Your task to perform on an android device: open app "Viber Messenger" (install if not already installed), go to login, and select forgot password Image 0: 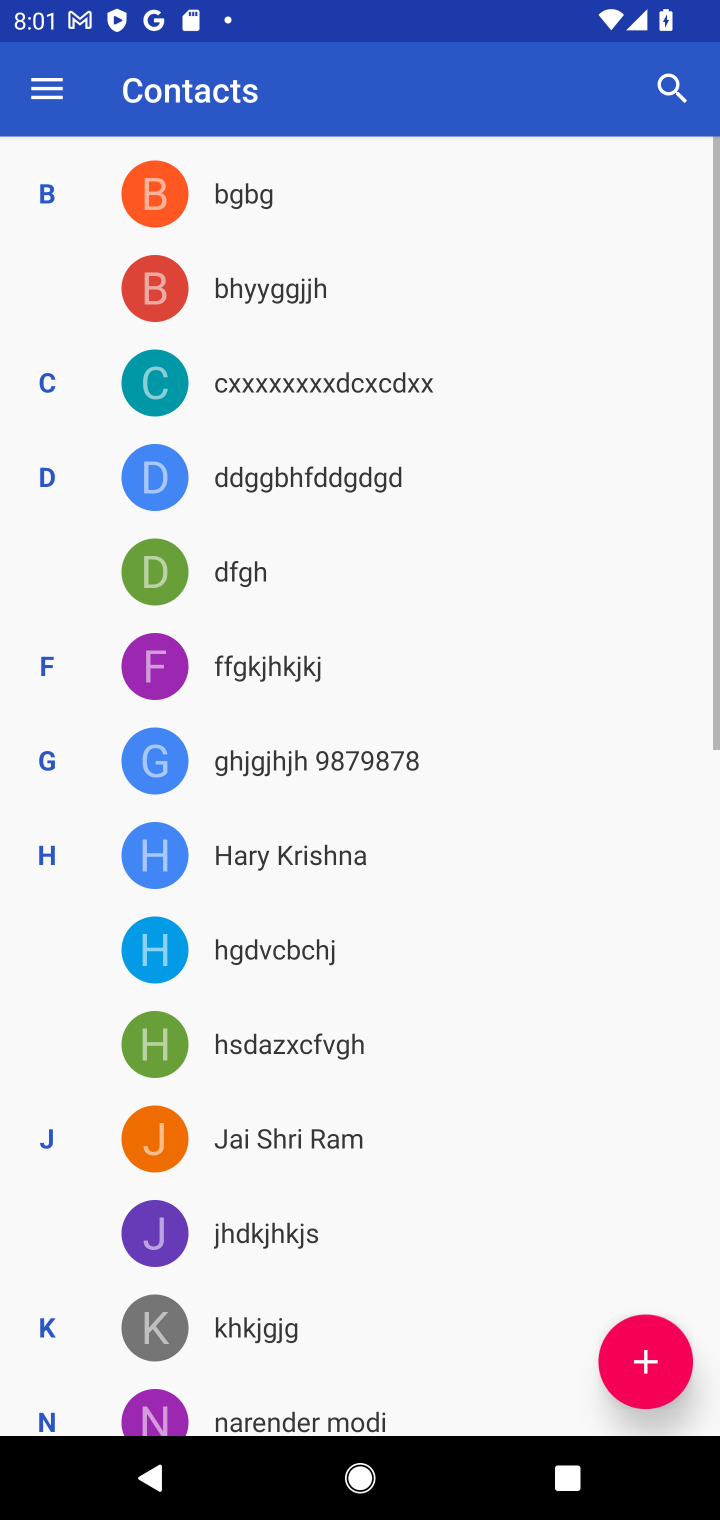
Step 0: press home button
Your task to perform on an android device: open app "Viber Messenger" (install if not already installed), go to login, and select forgot password Image 1: 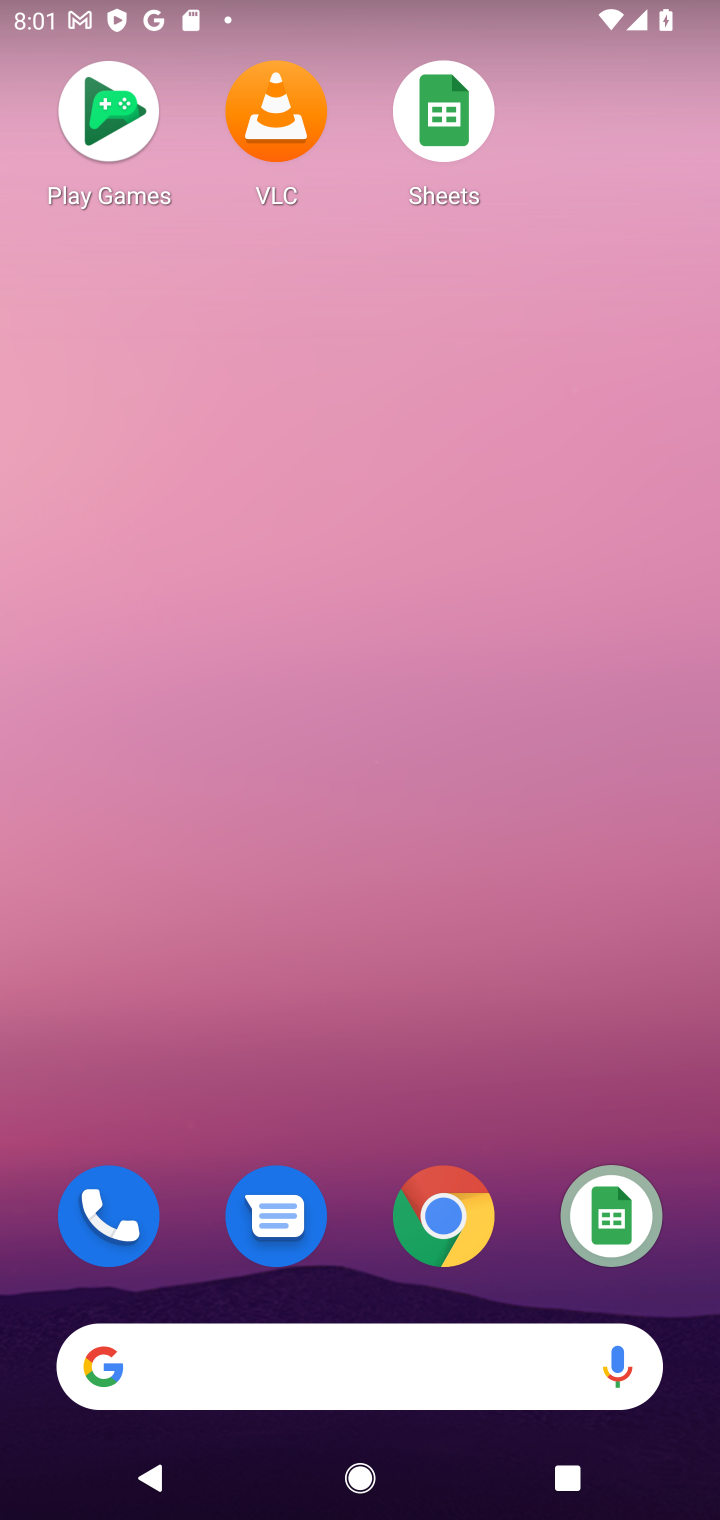
Step 1: drag from (382, 1204) to (449, 124)
Your task to perform on an android device: open app "Viber Messenger" (install if not already installed), go to login, and select forgot password Image 2: 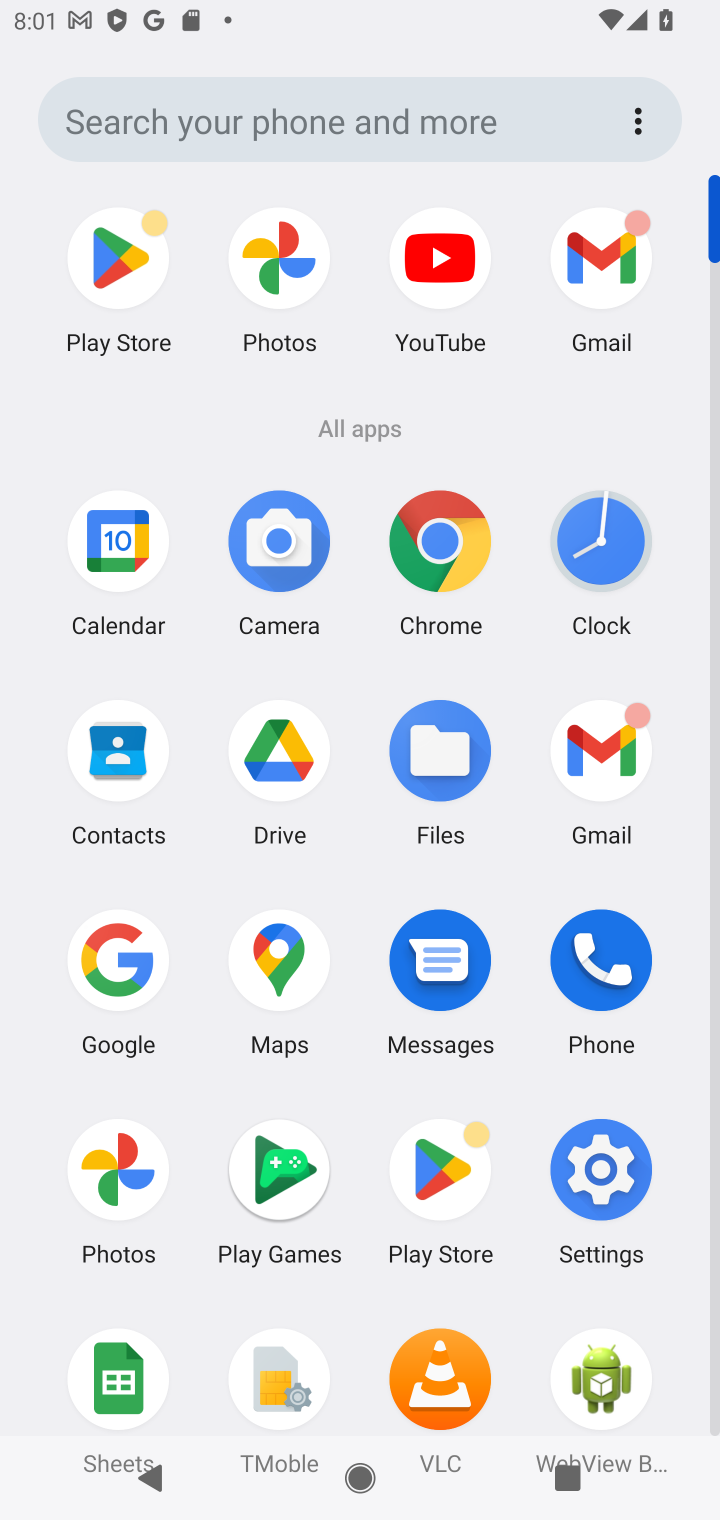
Step 2: click (105, 238)
Your task to perform on an android device: open app "Viber Messenger" (install if not already installed), go to login, and select forgot password Image 3: 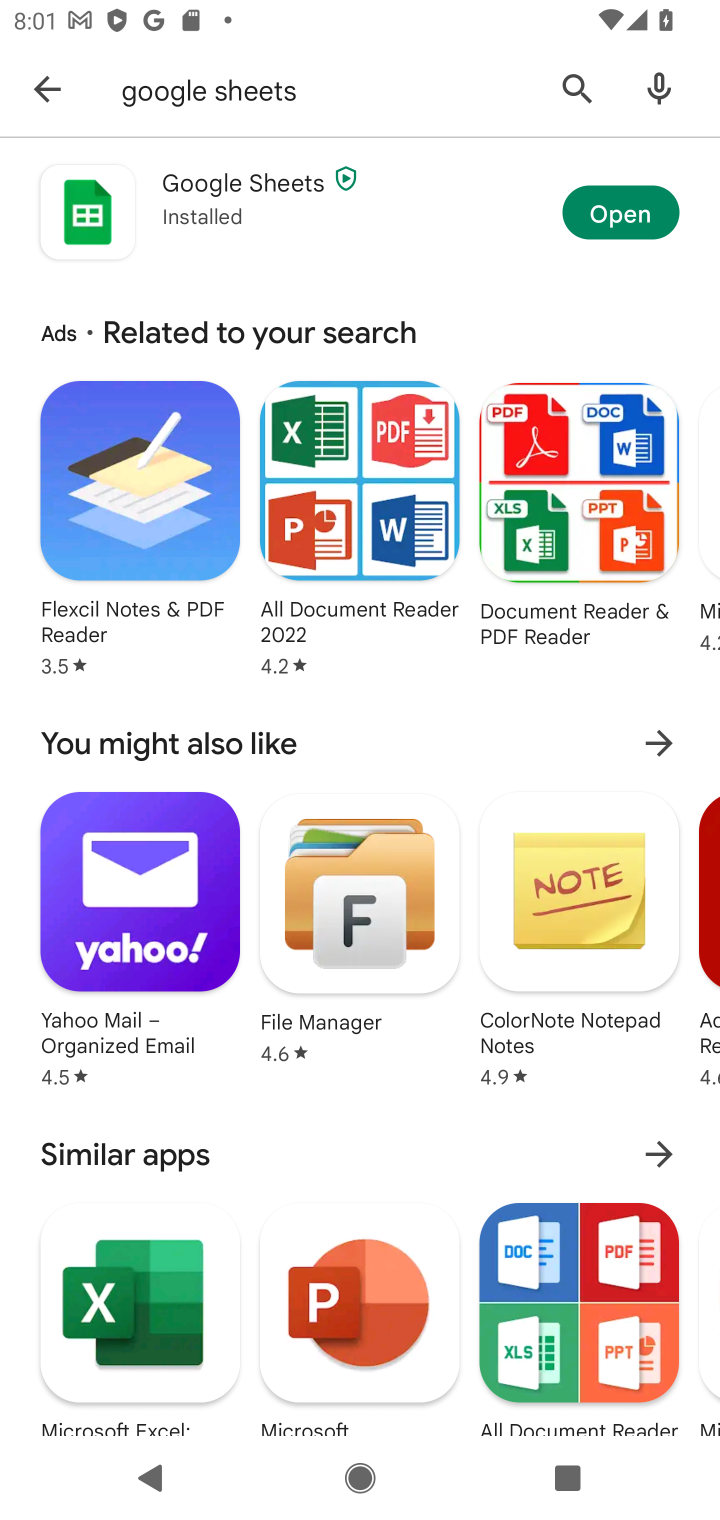
Step 3: click (569, 91)
Your task to perform on an android device: open app "Viber Messenger" (install if not already installed), go to login, and select forgot password Image 4: 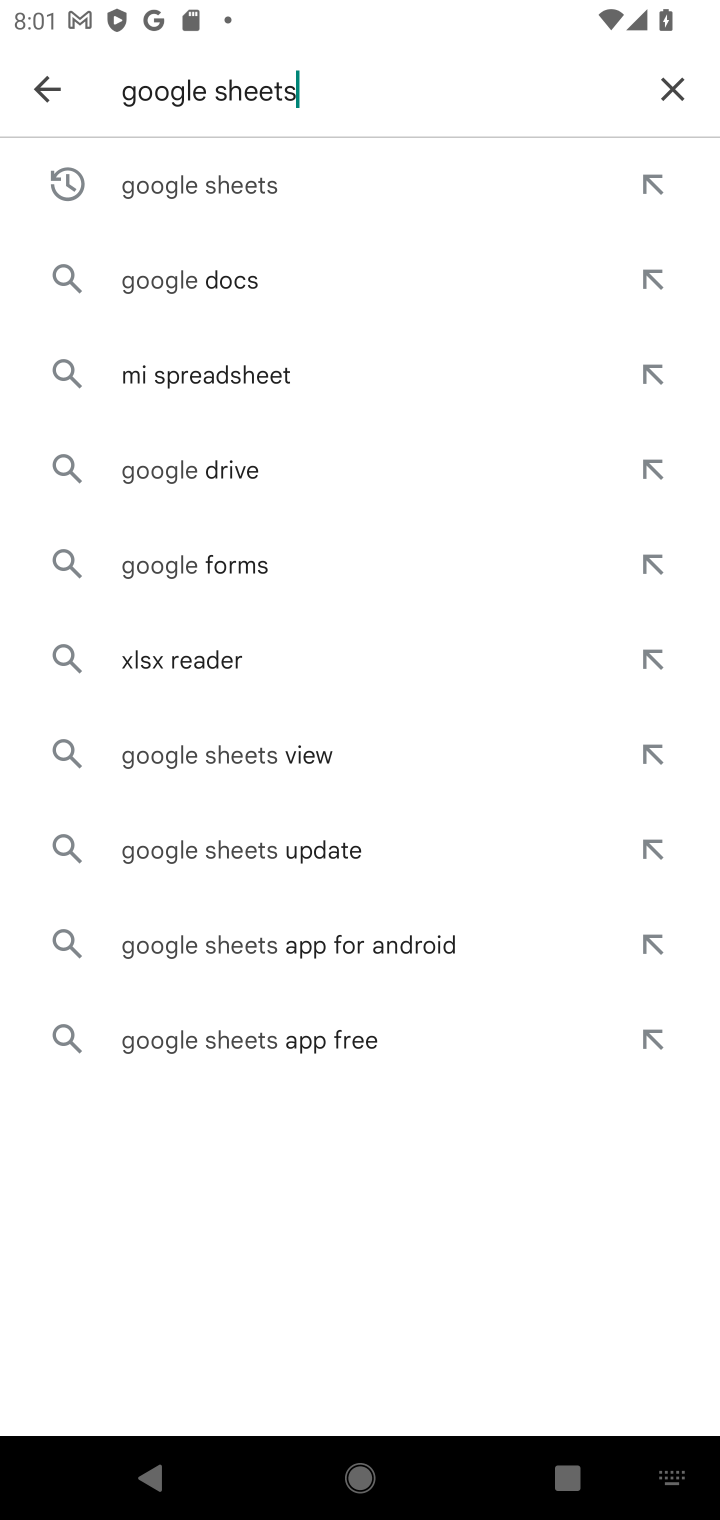
Step 4: click (685, 67)
Your task to perform on an android device: open app "Viber Messenger" (install if not already installed), go to login, and select forgot password Image 5: 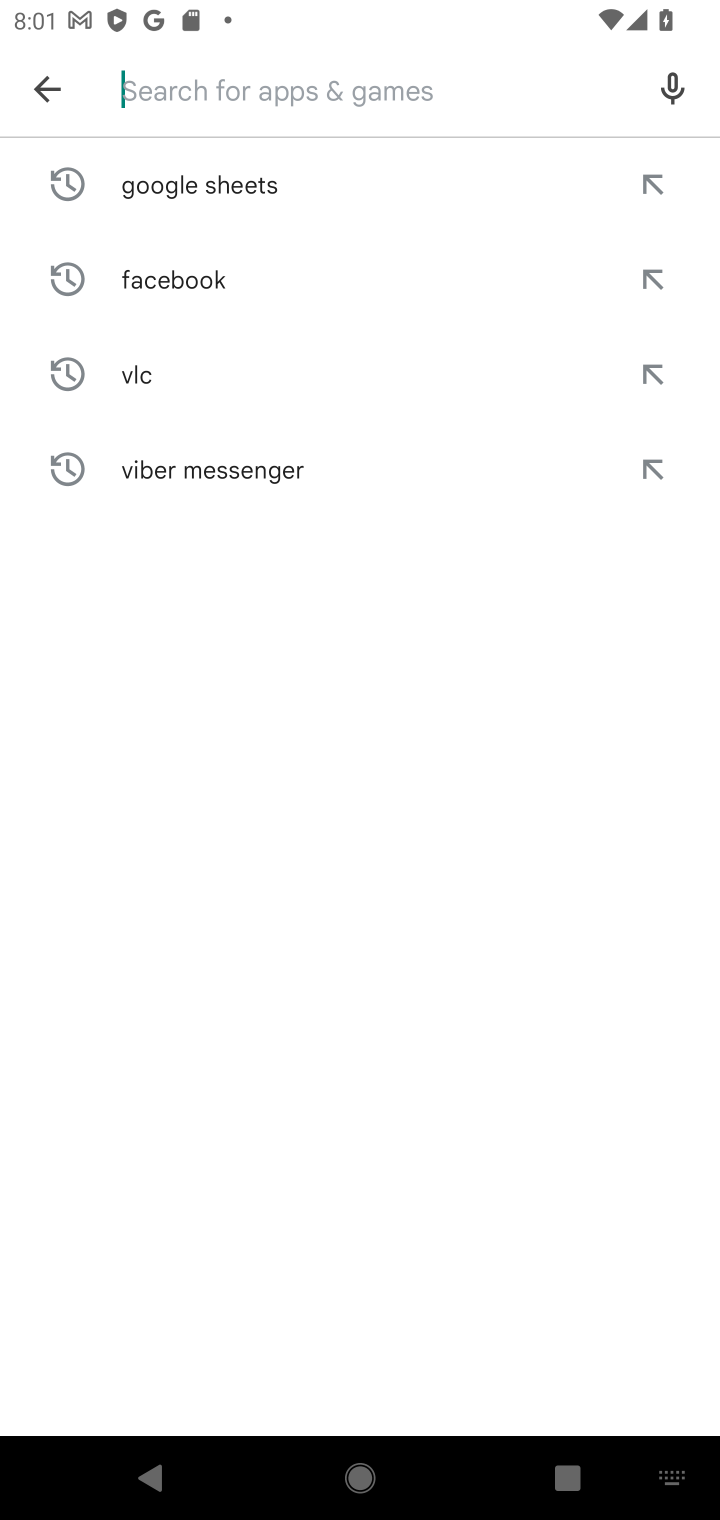
Step 5: click (270, 459)
Your task to perform on an android device: open app "Viber Messenger" (install if not already installed), go to login, and select forgot password Image 6: 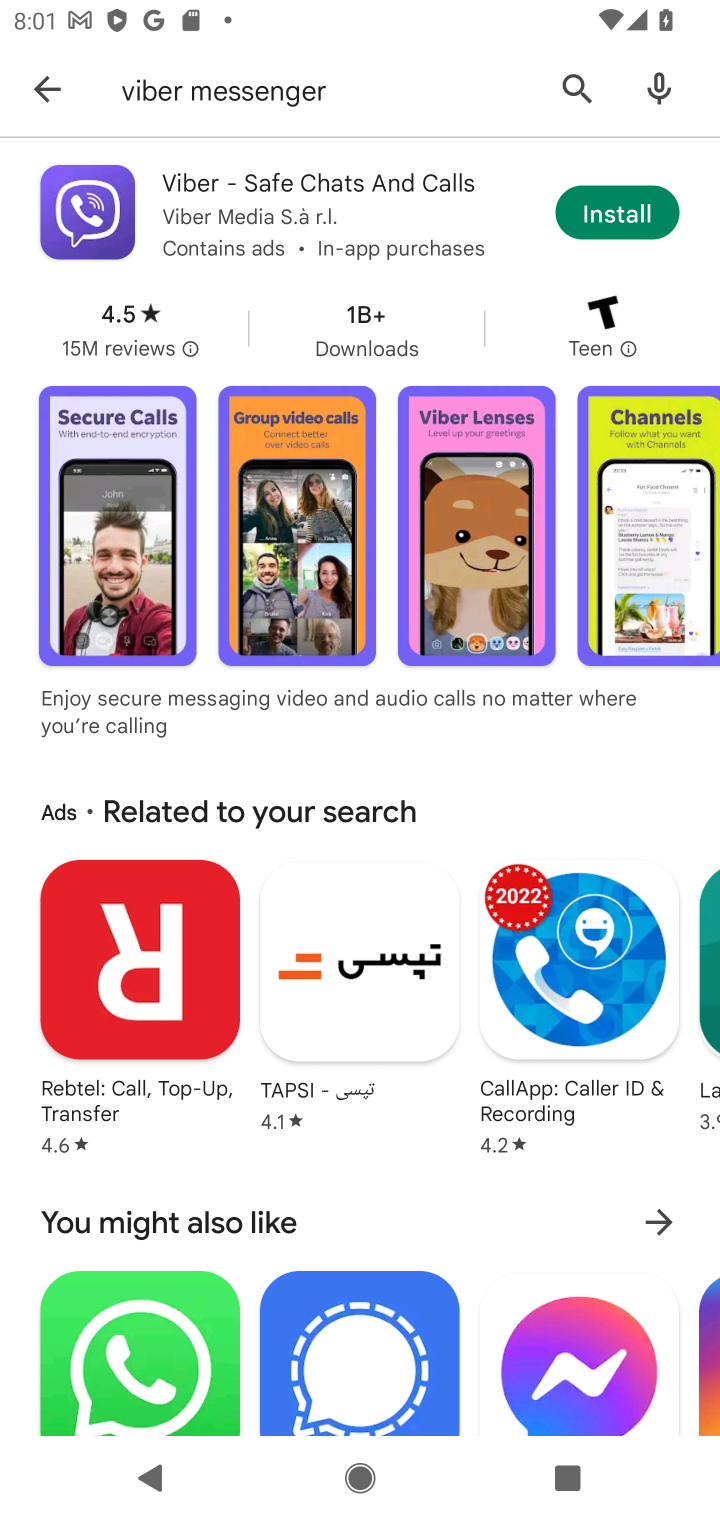
Step 6: click (631, 214)
Your task to perform on an android device: open app "Viber Messenger" (install if not already installed), go to login, and select forgot password Image 7: 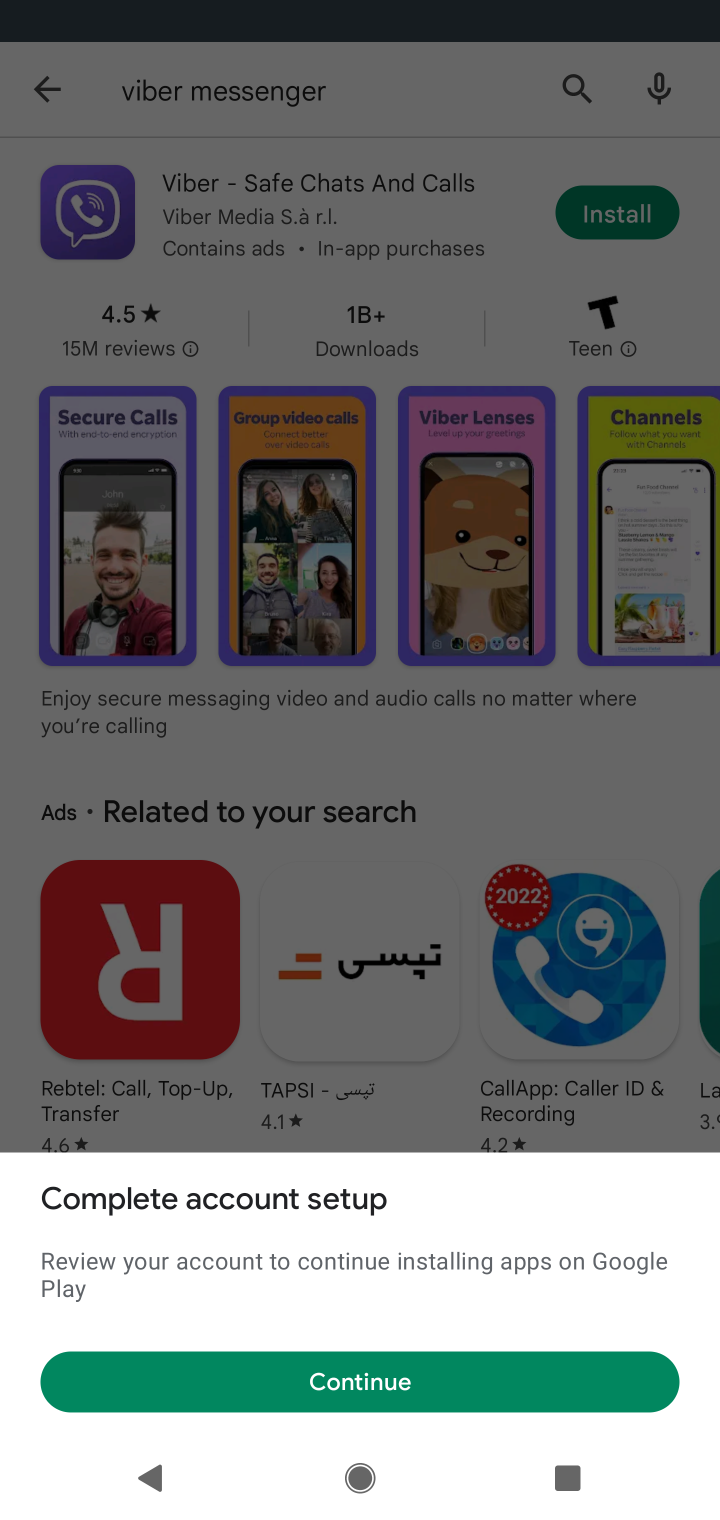
Step 7: click (640, 222)
Your task to perform on an android device: open app "Viber Messenger" (install if not already installed), go to login, and select forgot password Image 8: 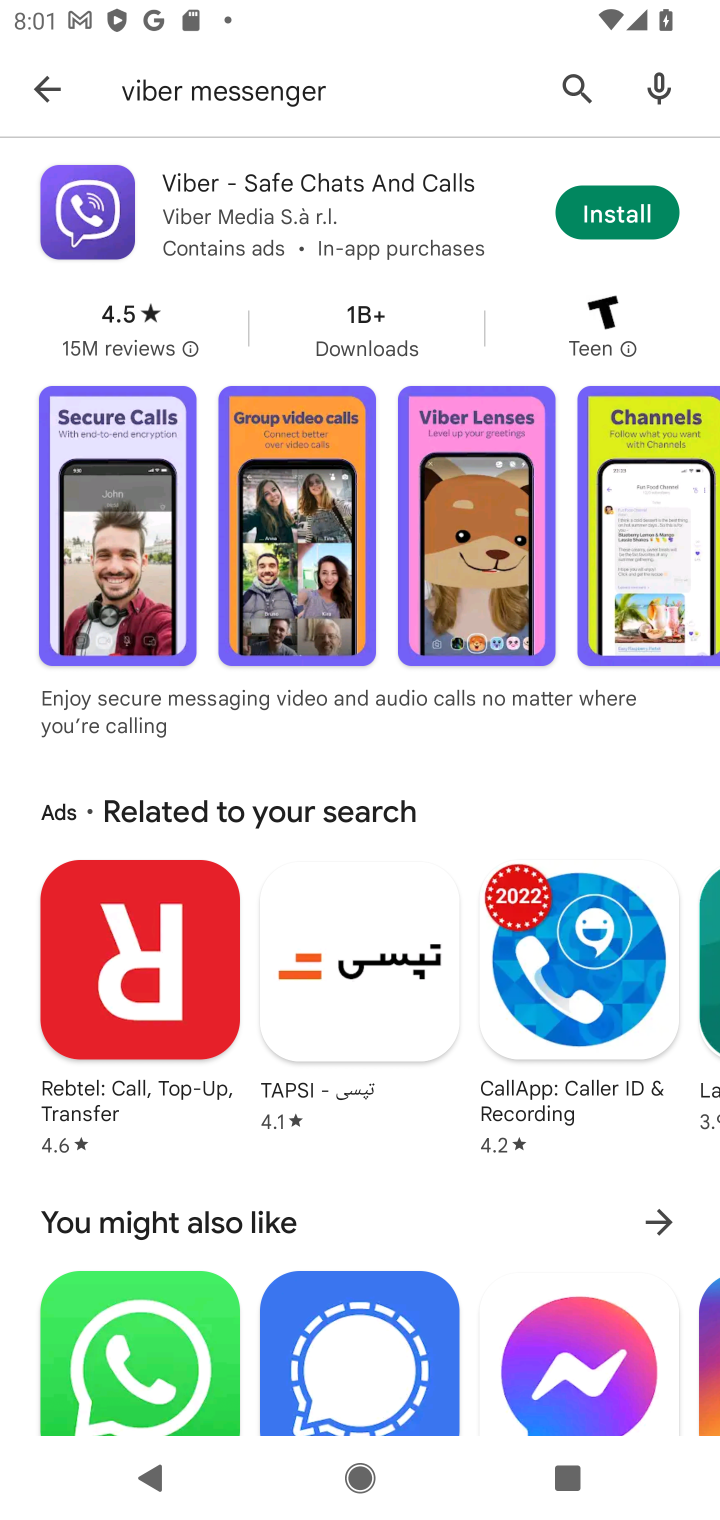
Step 8: click (632, 216)
Your task to perform on an android device: open app "Viber Messenger" (install if not already installed), go to login, and select forgot password Image 9: 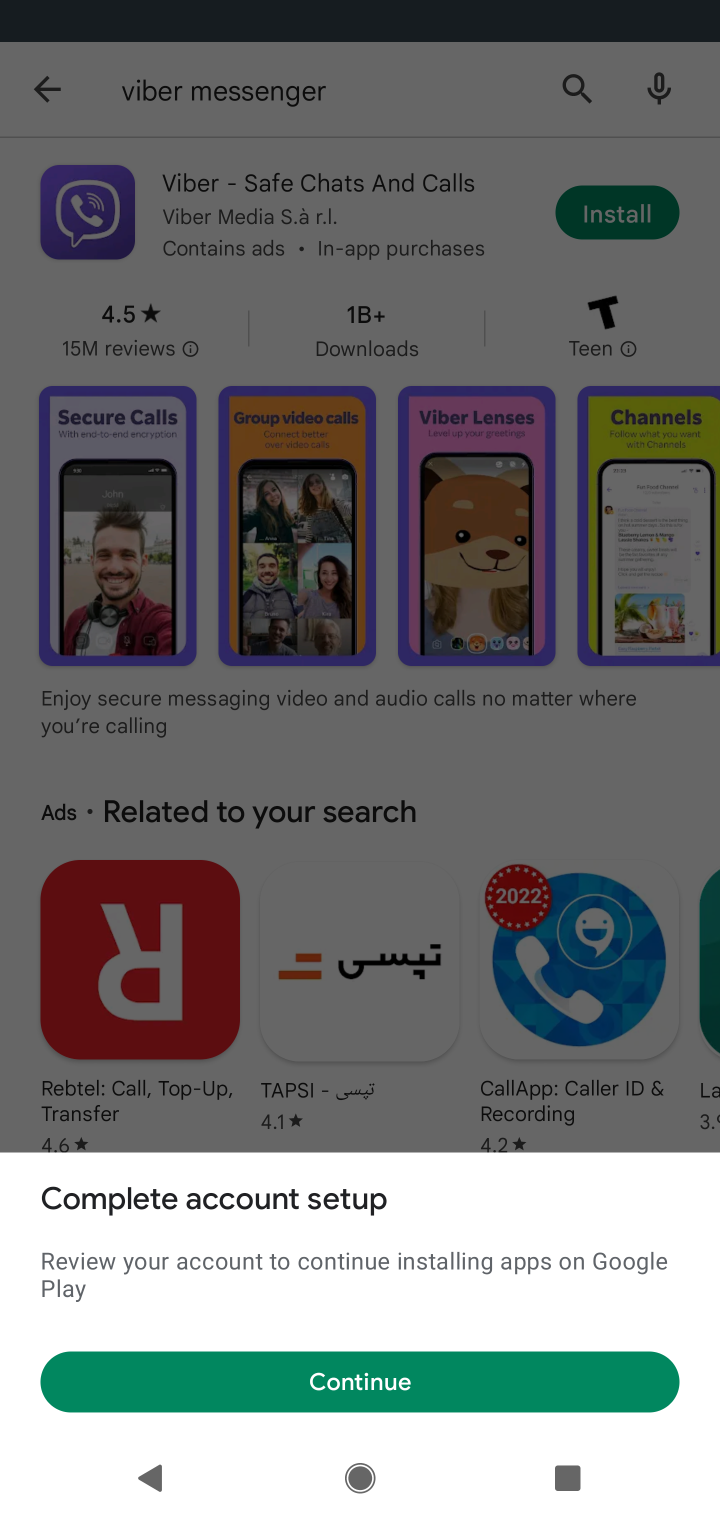
Step 9: click (345, 1390)
Your task to perform on an android device: open app "Viber Messenger" (install if not already installed), go to login, and select forgot password Image 10: 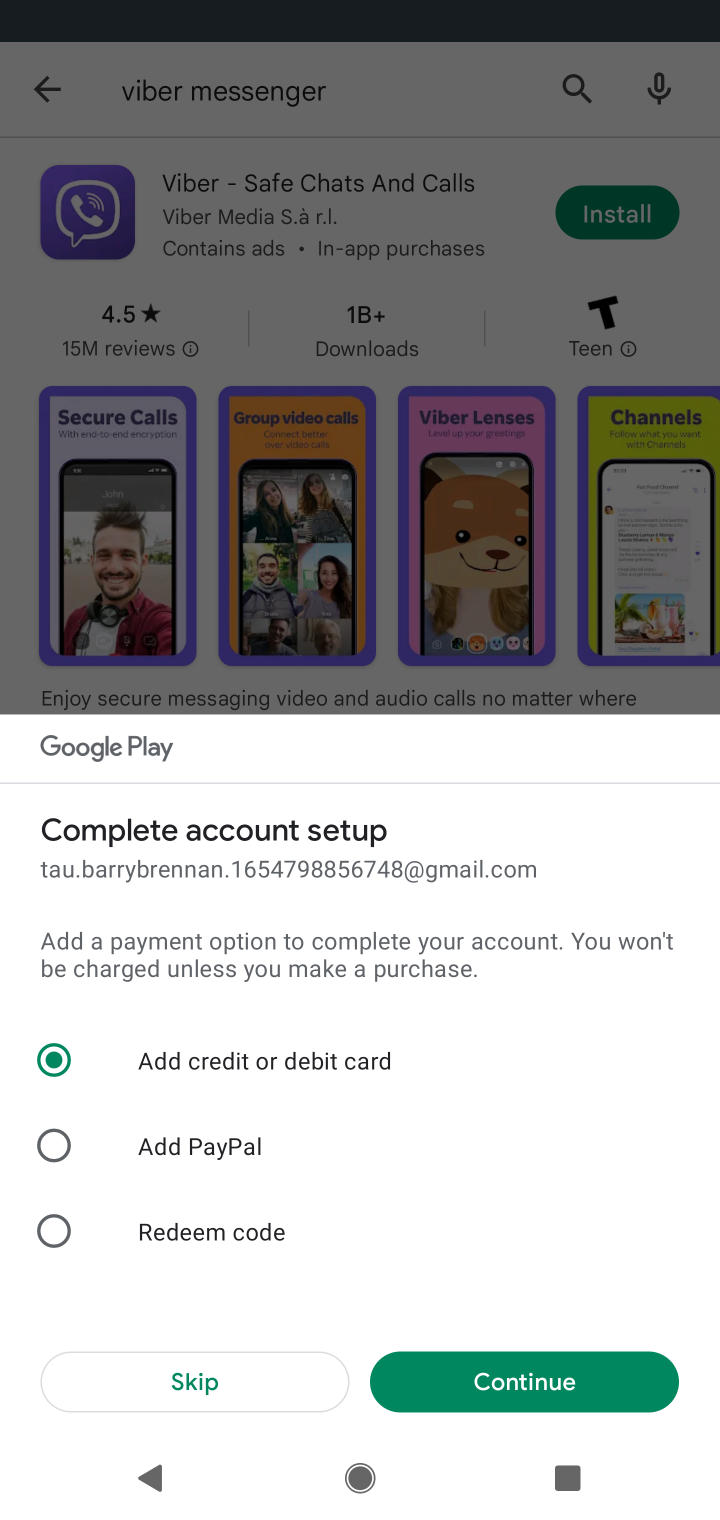
Step 10: click (169, 1388)
Your task to perform on an android device: open app "Viber Messenger" (install if not already installed), go to login, and select forgot password Image 11: 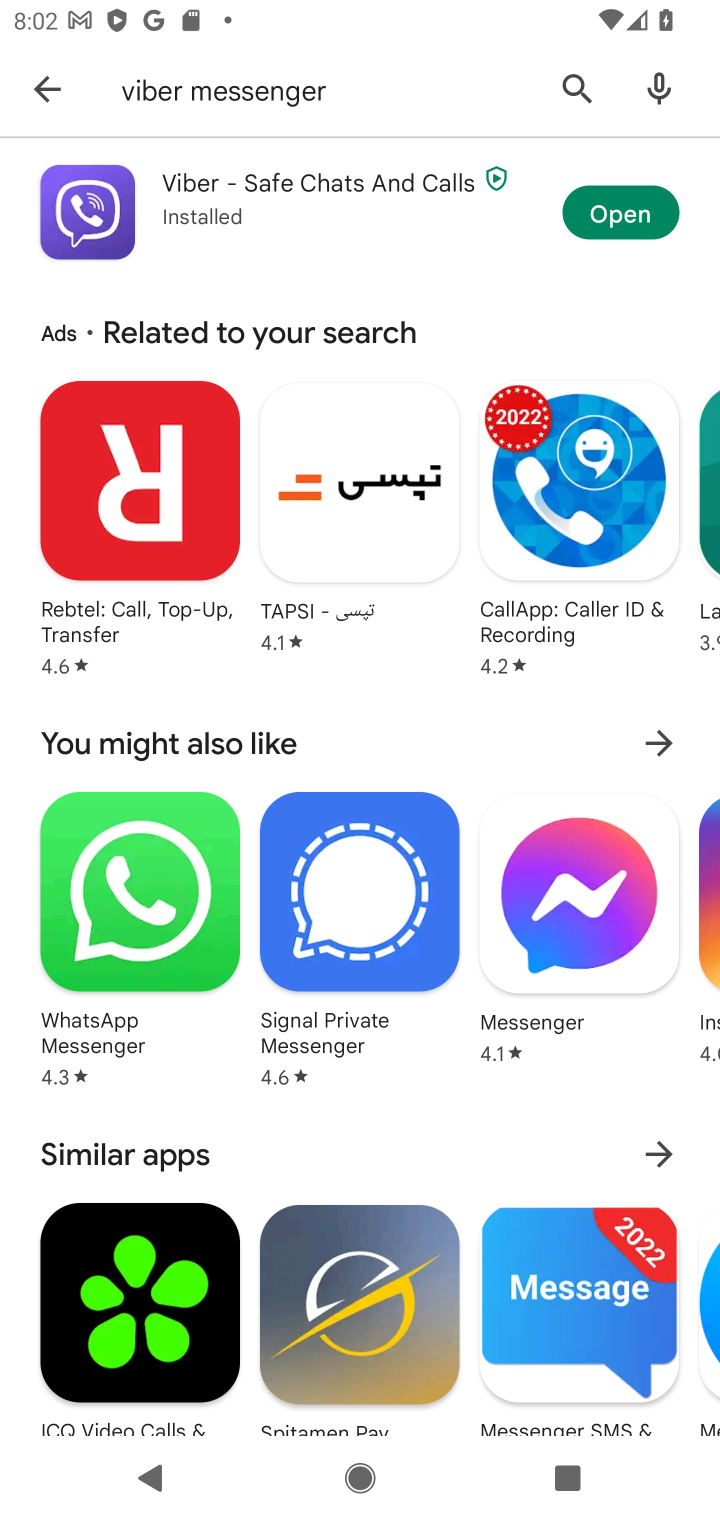
Step 11: click (618, 196)
Your task to perform on an android device: open app "Viber Messenger" (install if not already installed), go to login, and select forgot password Image 12: 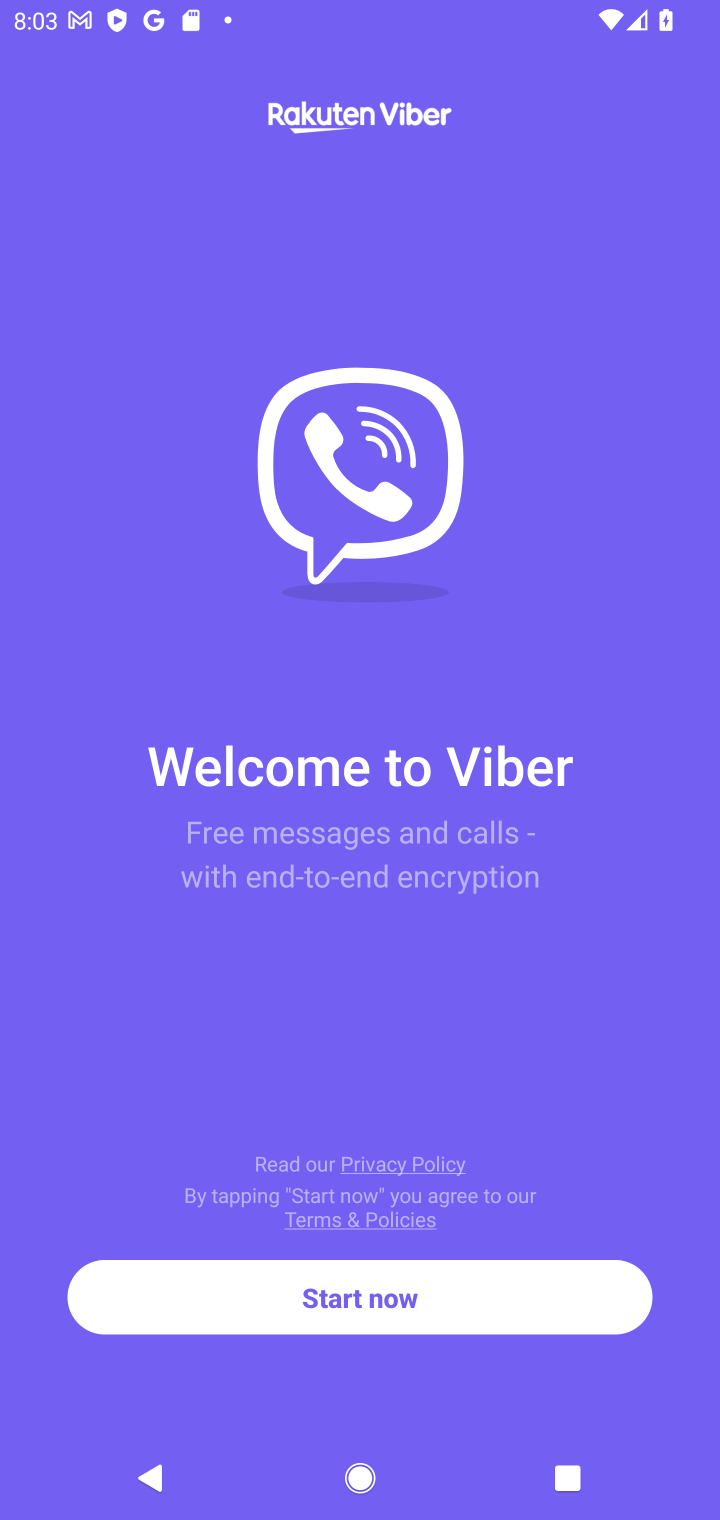
Step 12: click (392, 1292)
Your task to perform on an android device: open app "Viber Messenger" (install if not already installed), go to login, and select forgot password Image 13: 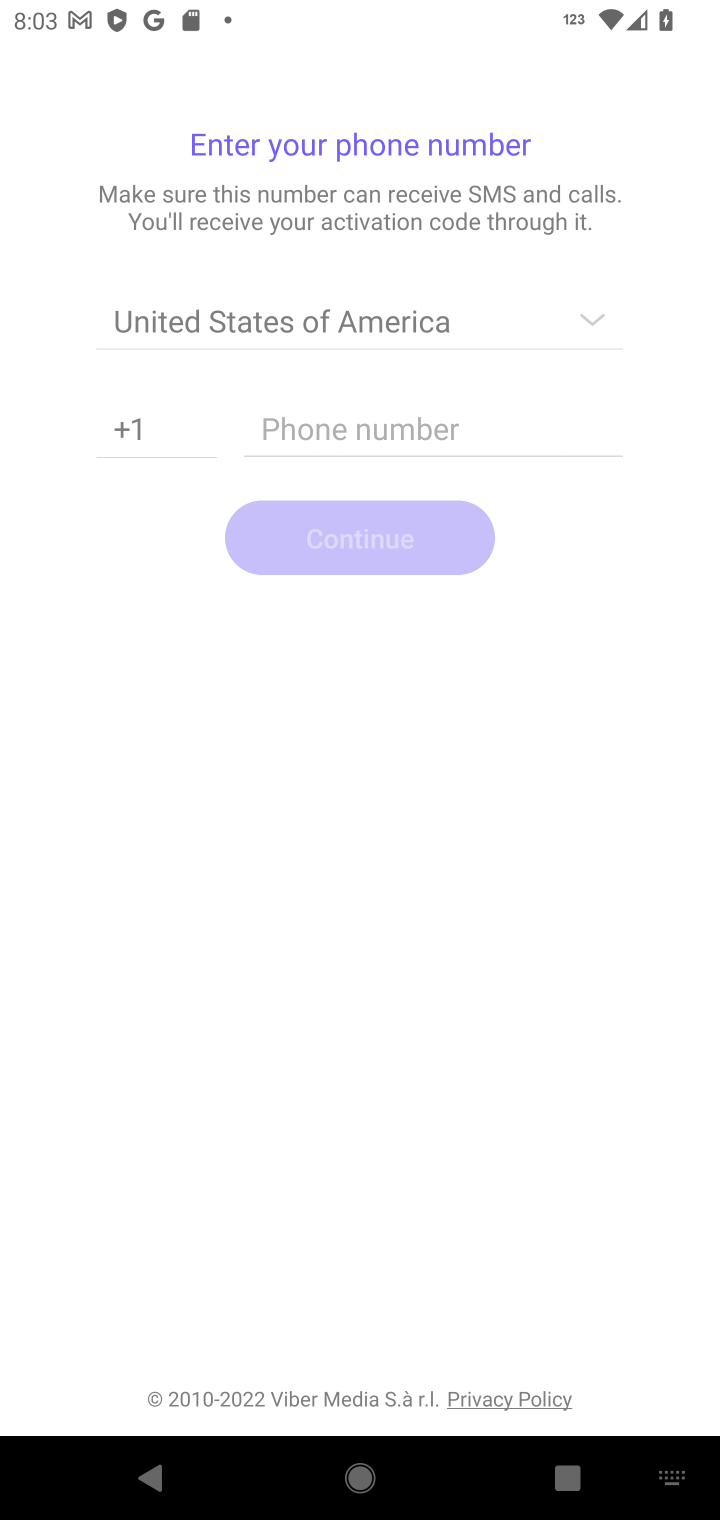
Step 13: task complete